Your task to perform on an android device: toggle location history Image 0: 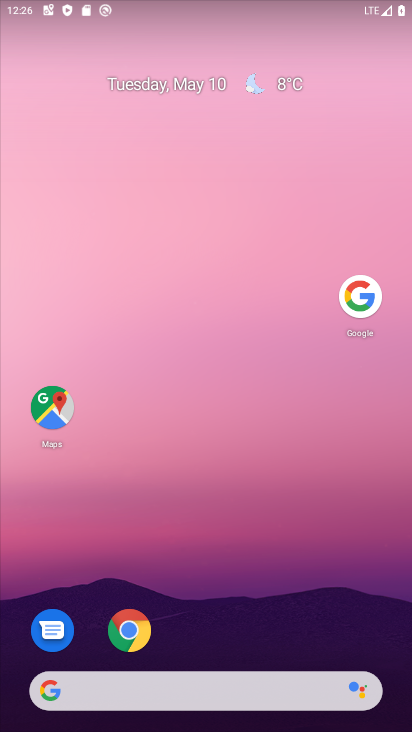
Step 0: drag from (133, 693) to (316, 461)
Your task to perform on an android device: toggle location history Image 1: 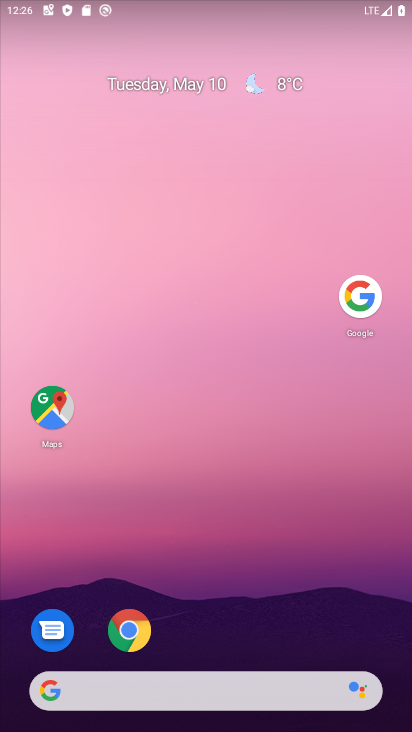
Step 1: drag from (186, 696) to (292, 135)
Your task to perform on an android device: toggle location history Image 2: 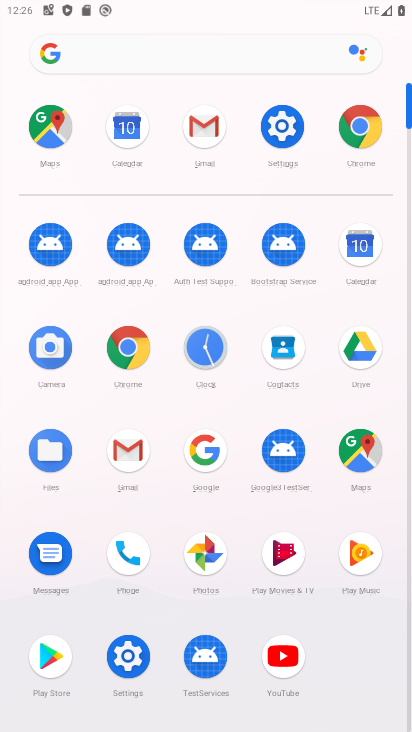
Step 2: click (53, 130)
Your task to perform on an android device: toggle location history Image 3: 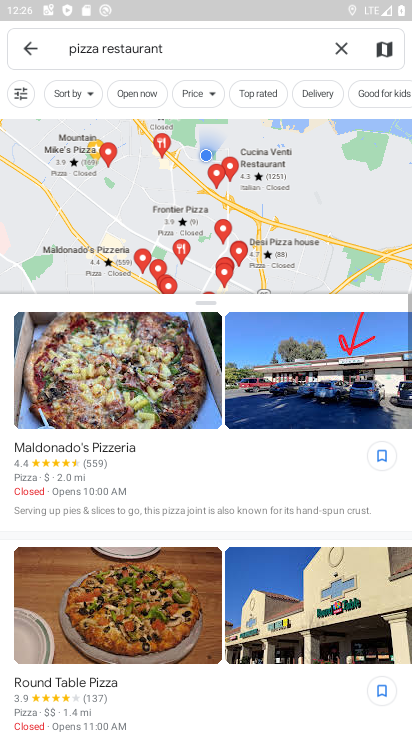
Step 3: click (30, 53)
Your task to perform on an android device: toggle location history Image 4: 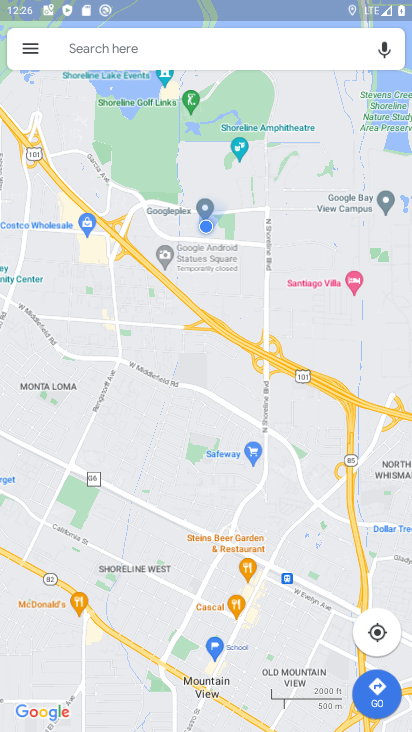
Step 4: click (30, 53)
Your task to perform on an android device: toggle location history Image 5: 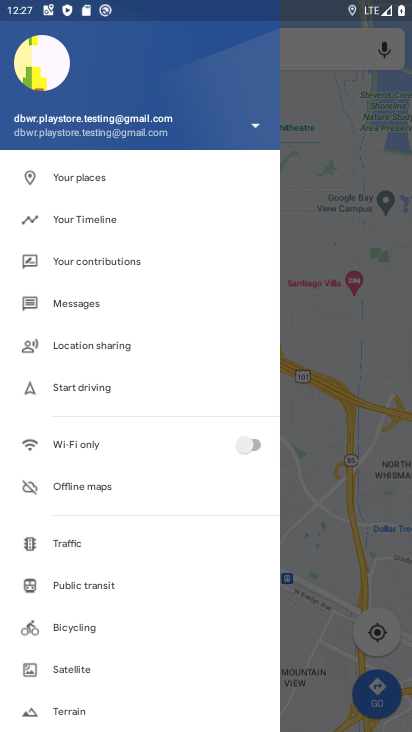
Step 5: click (102, 218)
Your task to perform on an android device: toggle location history Image 6: 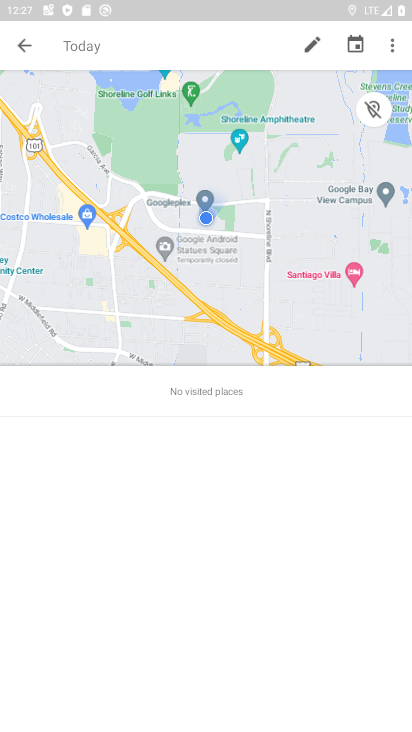
Step 6: click (389, 38)
Your task to perform on an android device: toggle location history Image 7: 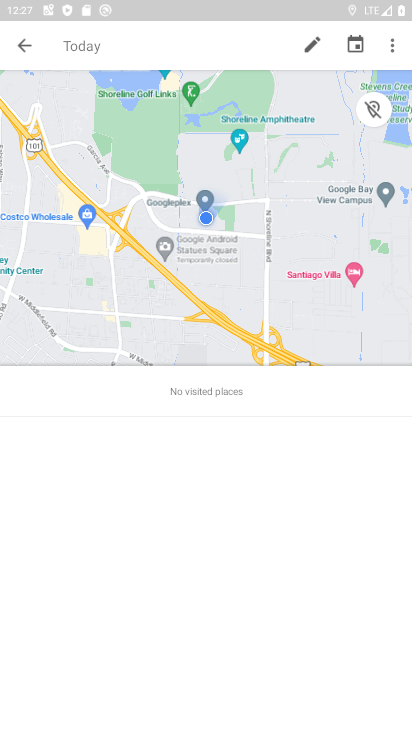
Step 7: click (390, 53)
Your task to perform on an android device: toggle location history Image 8: 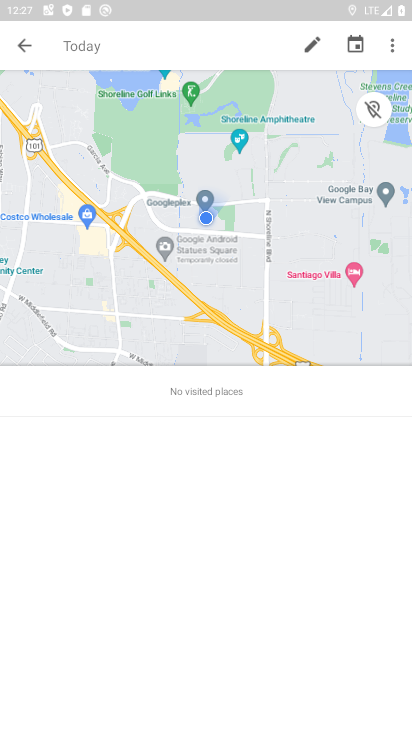
Step 8: click (392, 39)
Your task to perform on an android device: toggle location history Image 9: 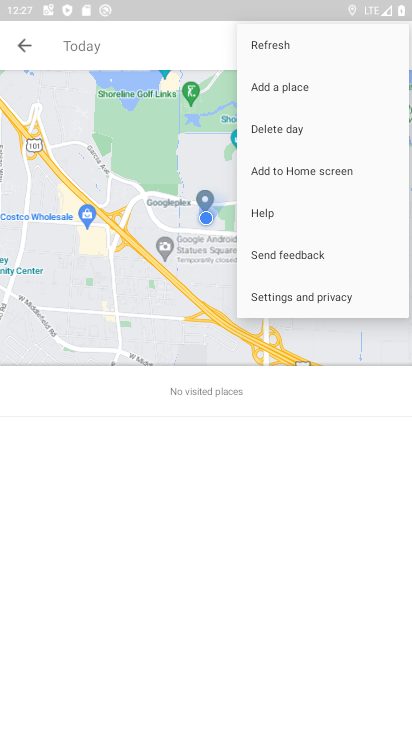
Step 9: click (299, 300)
Your task to perform on an android device: toggle location history Image 10: 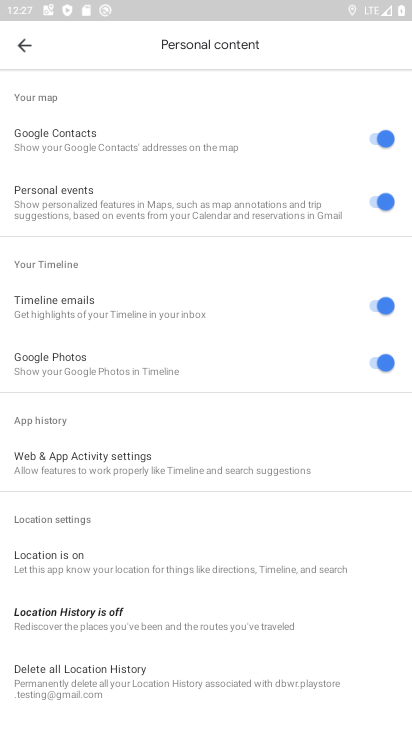
Step 10: click (85, 619)
Your task to perform on an android device: toggle location history Image 11: 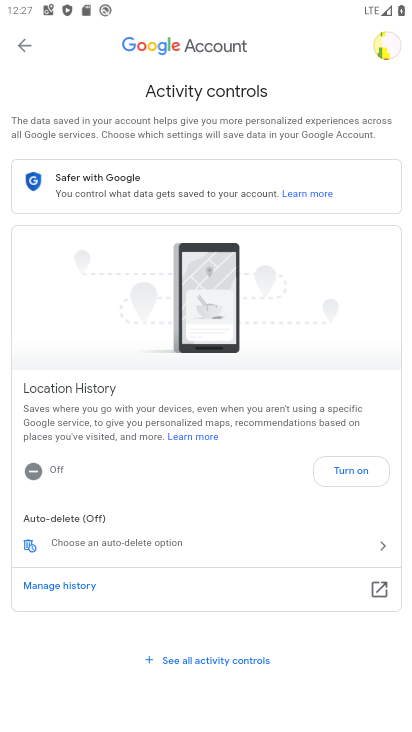
Step 11: click (357, 472)
Your task to perform on an android device: toggle location history Image 12: 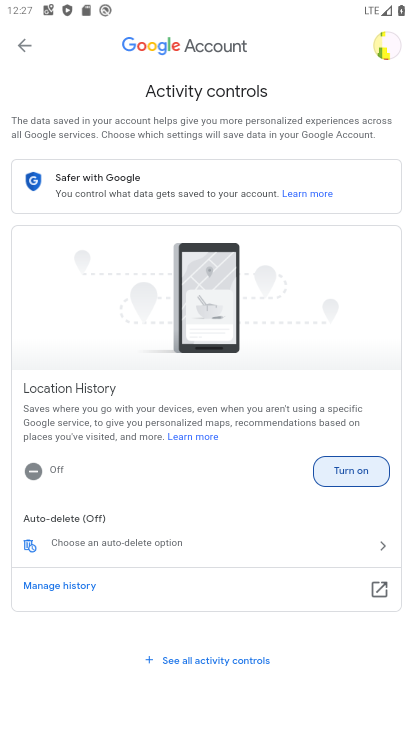
Step 12: click (349, 466)
Your task to perform on an android device: toggle location history Image 13: 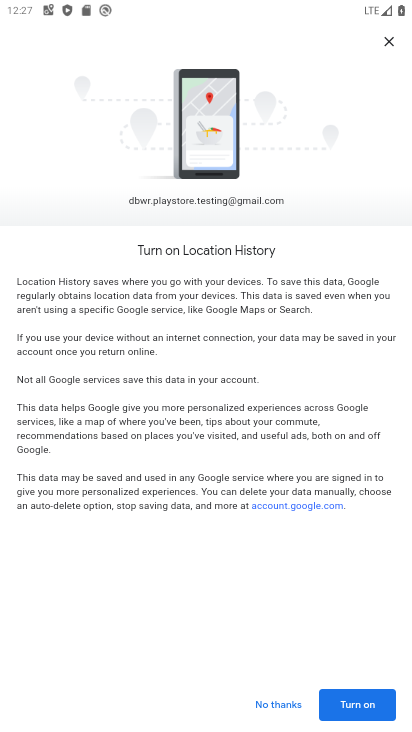
Step 13: click (346, 703)
Your task to perform on an android device: toggle location history Image 14: 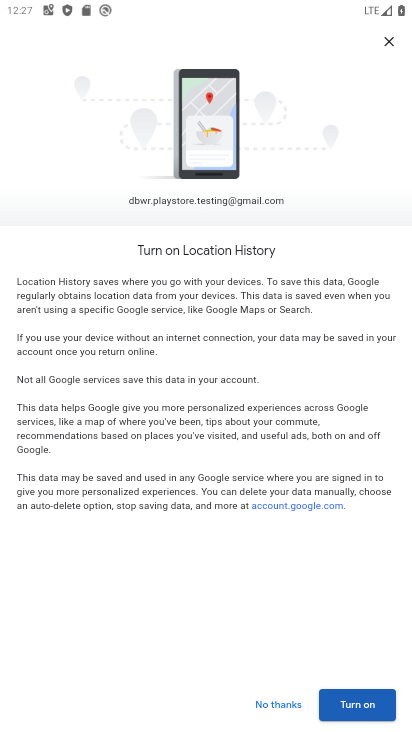
Step 14: click (361, 708)
Your task to perform on an android device: toggle location history Image 15: 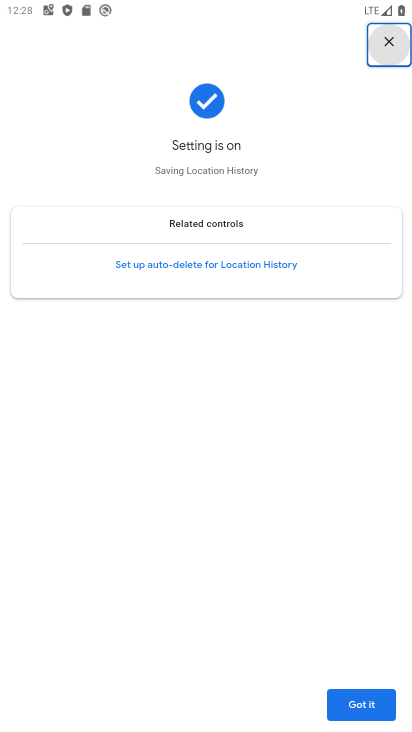
Step 15: click (364, 699)
Your task to perform on an android device: toggle location history Image 16: 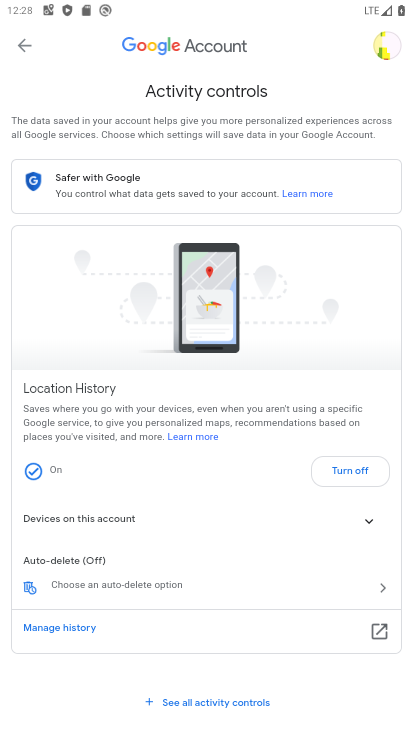
Step 16: task complete